Your task to perform on an android device: add a contact Image 0: 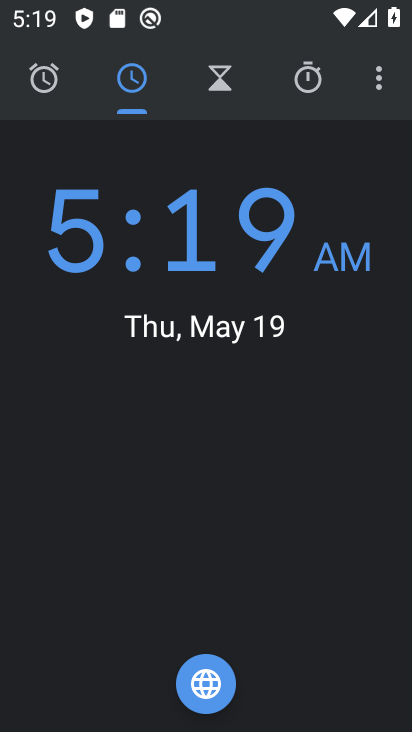
Step 0: press home button
Your task to perform on an android device: add a contact Image 1: 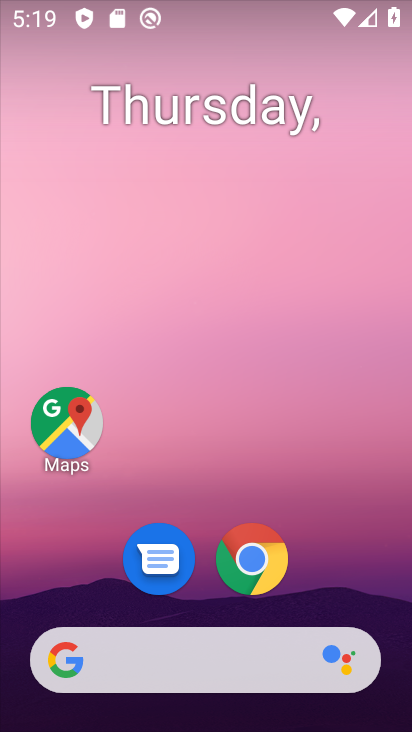
Step 1: drag from (209, 586) to (235, 161)
Your task to perform on an android device: add a contact Image 2: 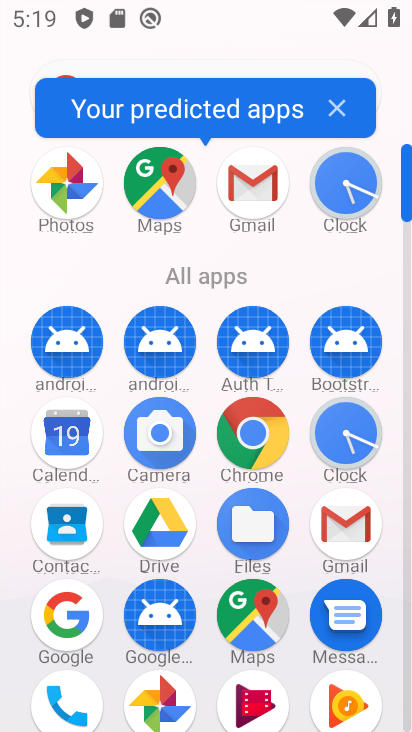
Step 2: click (69, 530)
Your task to perform on an android device: add a contact Image 3: 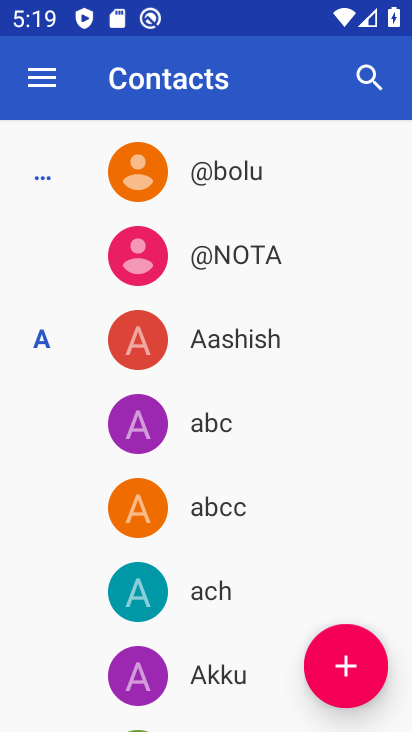
Step 3: click (341, 655)
Your task to perform on an android device: add a contact Image 4: 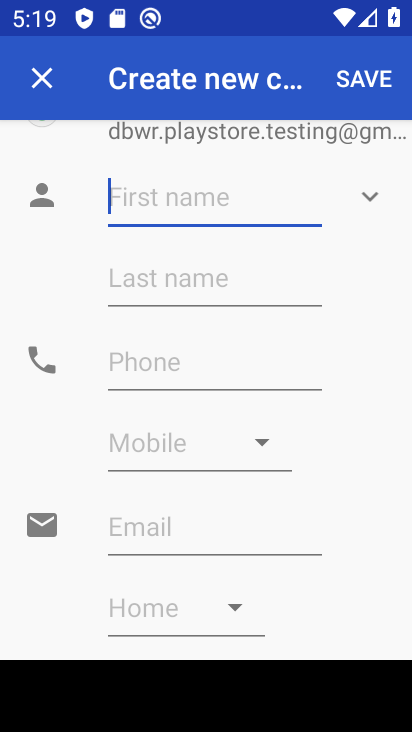
Step 4: type "amanda"
Your task to perform on an android device: add a contact Image 5: 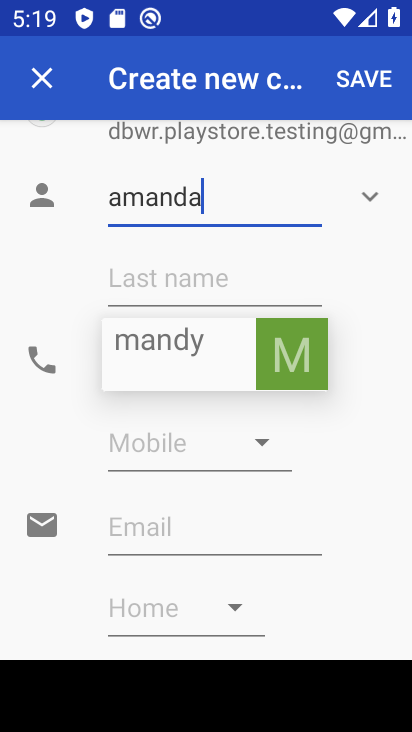
Step 5: click (361, 84)
Your task to perform on an android device: add a contact Image 6: 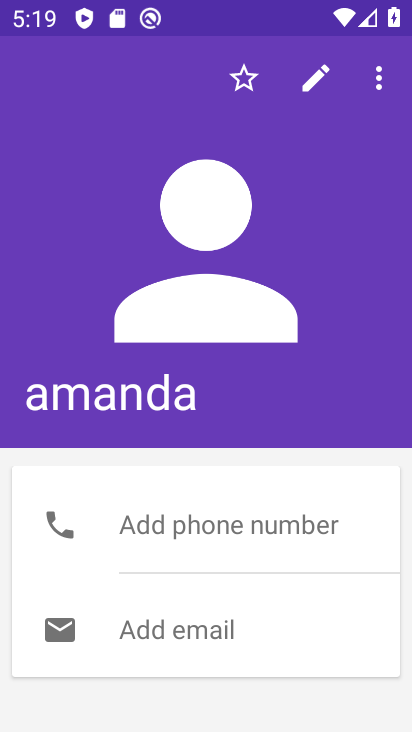
Step 6: task complete